Your task to perform on an android device: Open Google Image 0: 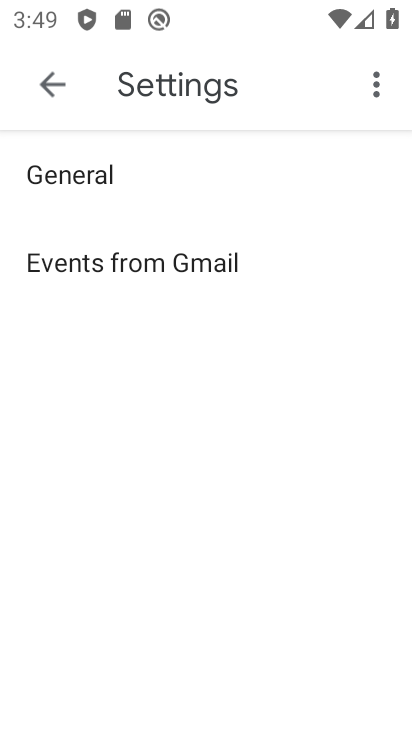
Step 0: press home button
Your task to perform on an android device: Open Google Image 1: 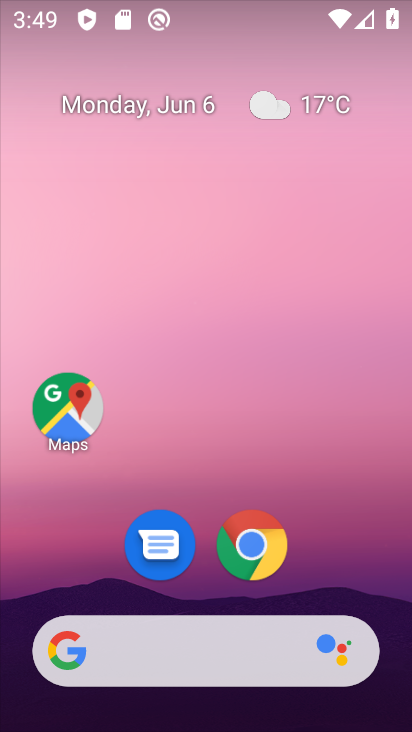
Step 1: drag from (235, 728) to (256, 183)
Your task to perform on an android device: Open Google Image 2: 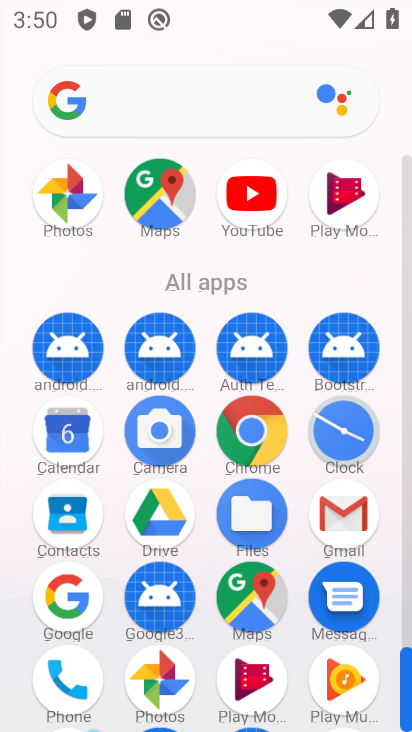
Step 2: click (61, 601)
Your task to perform on an android device: Open Google Image 3: 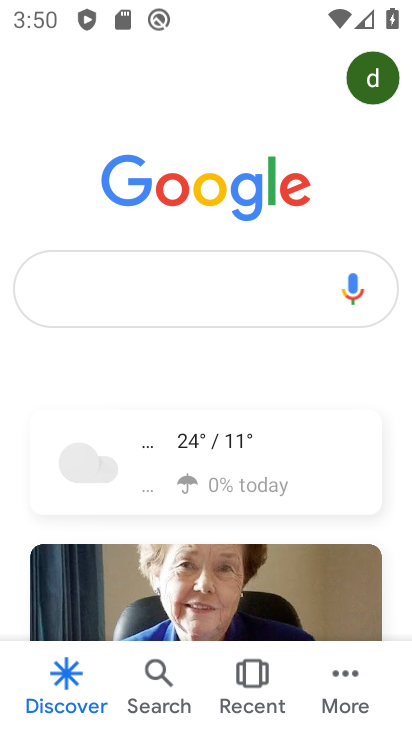
Step 3: task complete